Your task to perform on an android device: Do I have any events today? Image 0: 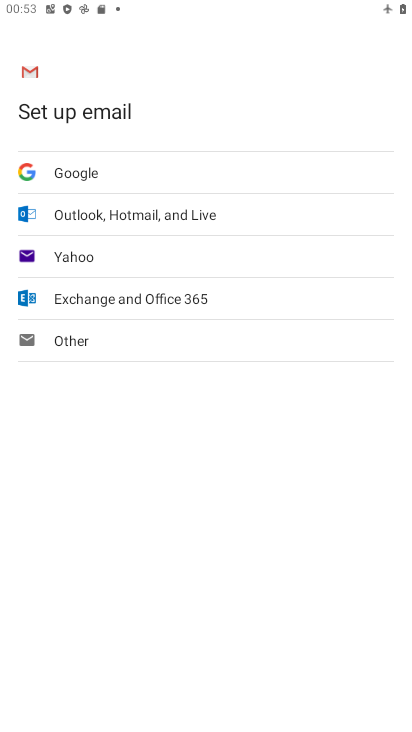
Step 0: press home button
Your task to perform on an android device: Do I have any events today? Image 1: 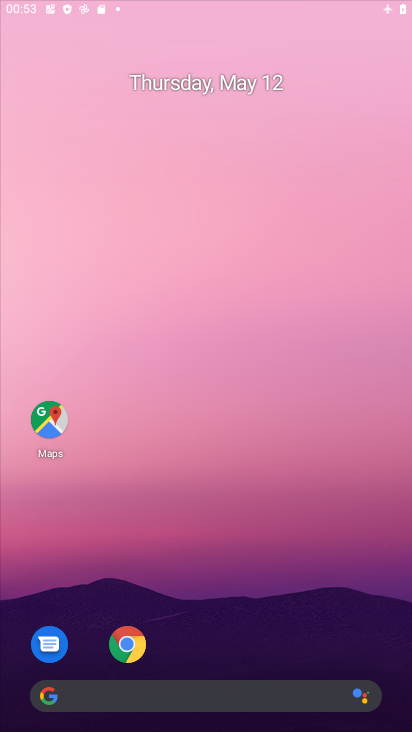
Step 1: press home button
Your task to perform on an android device: Do I have any events today? Image 2: 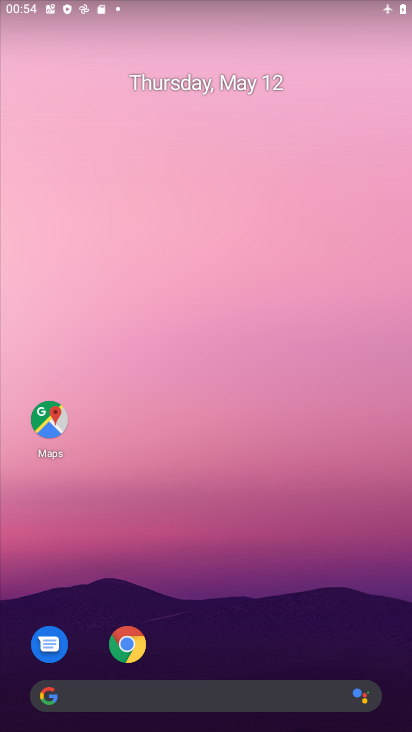
Step 2: drag from (328, 621) to (338, 192)
Your task to perform on an android device: Do I have any events today? Image 3: 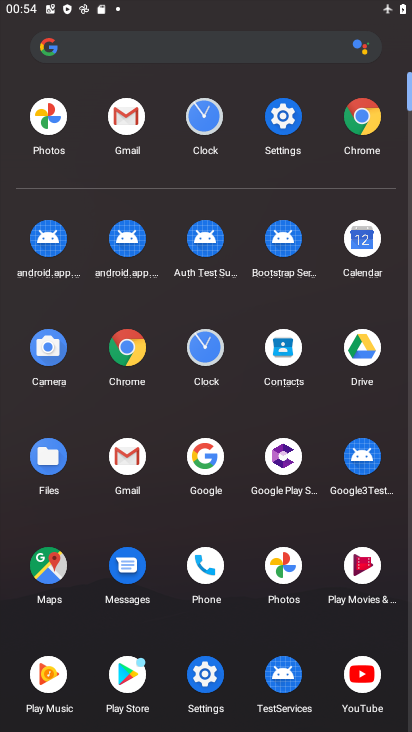
Step 3: click (350, 237)
Your task to perform on an android device: Do I have any events today? Image 4: 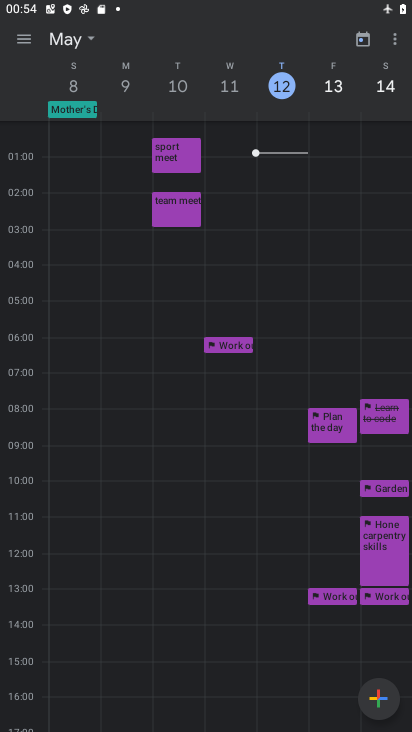
Step 4: task complete